Your task to perform on an android device: star an email in the gmail app Image 0: 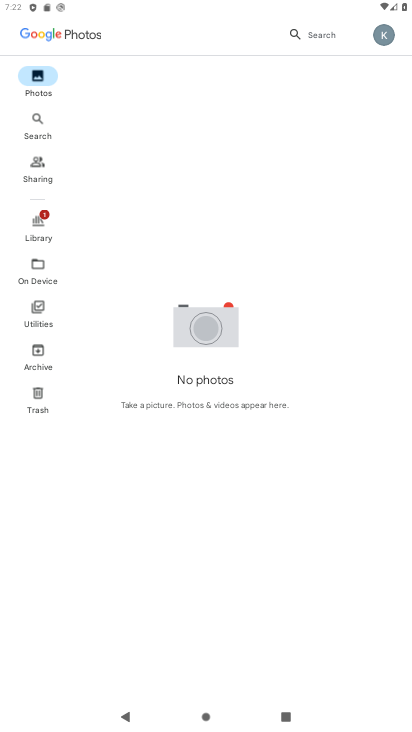
Step 0: press home button
Your task to perform on an android device: star an email in the gmail app Image 1: 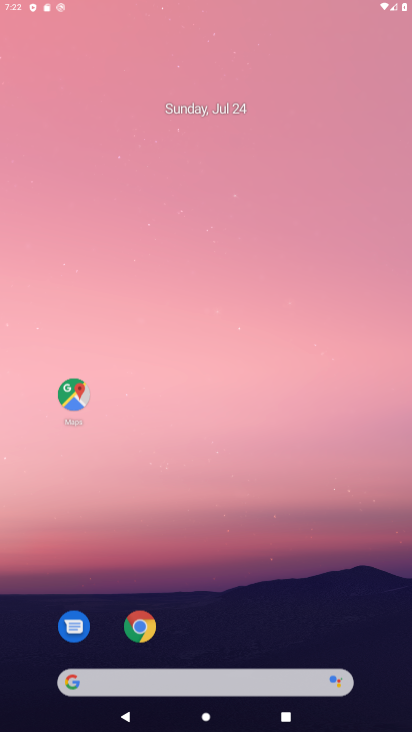
Step 1: drag from (397, 671) to (273, 1)
Your task to perform on an android device: star an email in the gmail app Image 2: 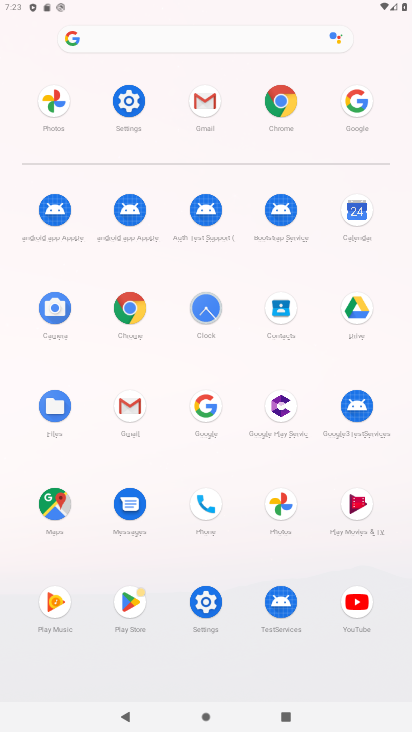
Step 2: click (128, 423)
Your task to perform on an android device: star an email in the gmail app Image 3: 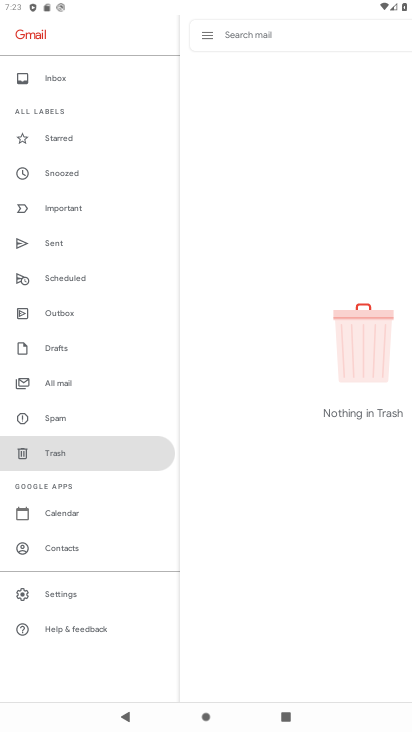
Step 3: click (81, 85)
Your task to perform on an android device: star an email in the gmail app Image 4: 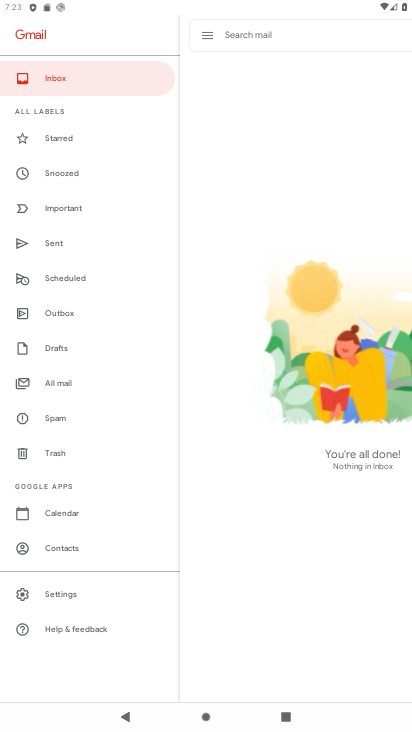
Step 4: task complete